Your task to perform on an android device: see tabs open on other devices in the chrome app Image 0: 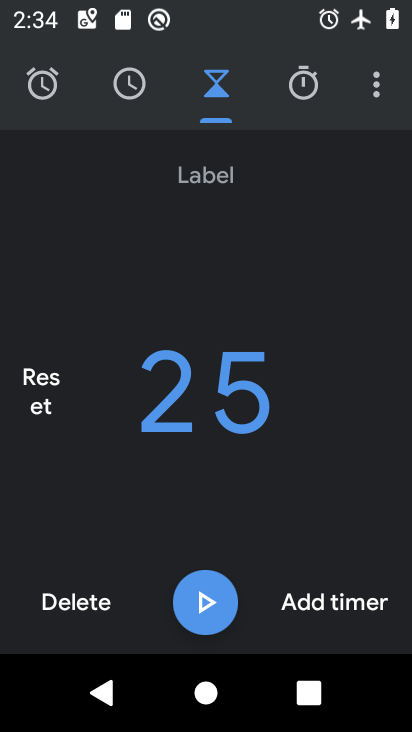
Step 0: press home button
Your task to perform on an android device: see tabs open on other devices in the chrome app Image 1: 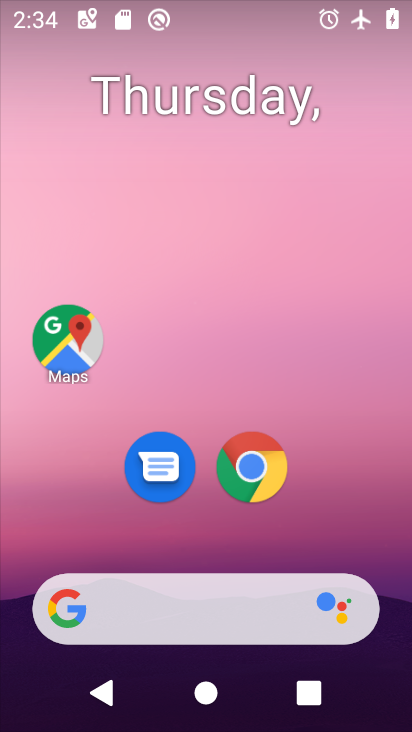
Step 1: click (255, 475)
Your task to perform on an android device: see tabs open on other devices in the chrome app Image 2: 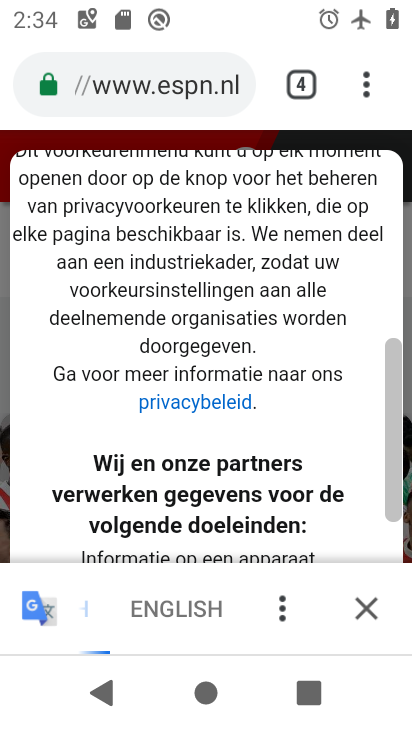
Step 2: click (298, 80)
Your task to perform on an android device: see tabs open on other devices in the chrome app Image 3: 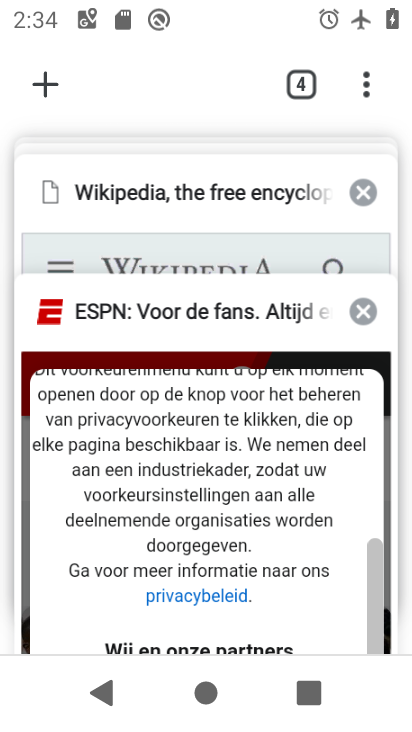
Step 3: task complete